Your task to perform on an android device: Clear the shopping cart on amazon. Search for "lg ultragear" on amazon, select the first entry, and add it to the cart. Image 0: 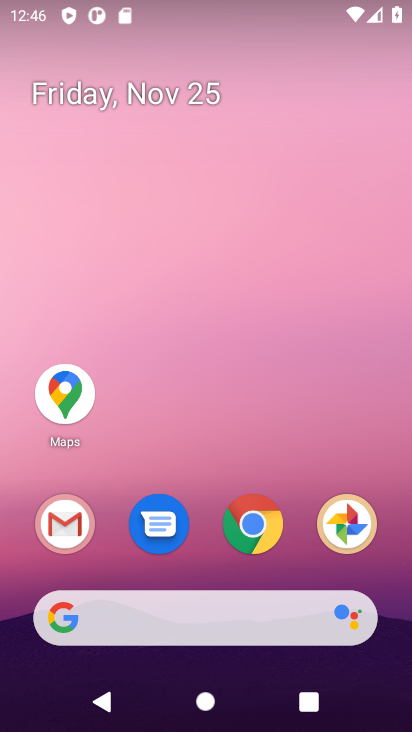
Step 0: click (259, 531)
Your task to perform on an android device: Clear the shopping cart on amazon. Search for "lg ultragear" on amazon, select the first entry, and add it to the cart. Image 1: 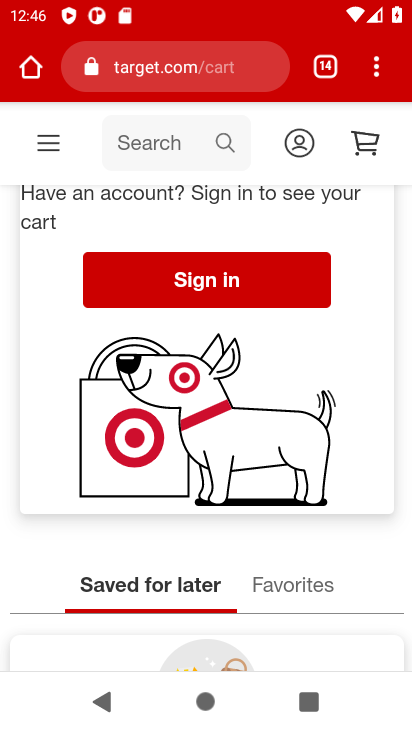
Step 1: click (198, 69)
Your task to perform on an android device: Clear the shopping cart on amazon. Search for "lg ultragear" on amazon, select the first entry, and add it to the cart. Image 2: 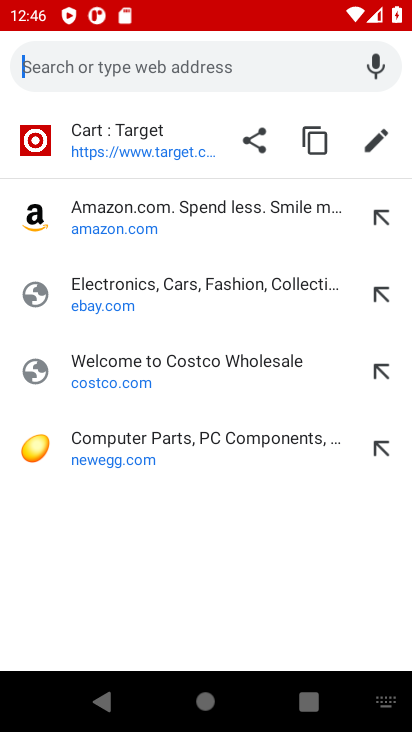
Step 2: click (99, 211)
Your task to perform on an android device: Clear the shopping cart on amazon. Search for "lg ultragear" on amazon, select the first entry, and add it to the cart. Image 3: 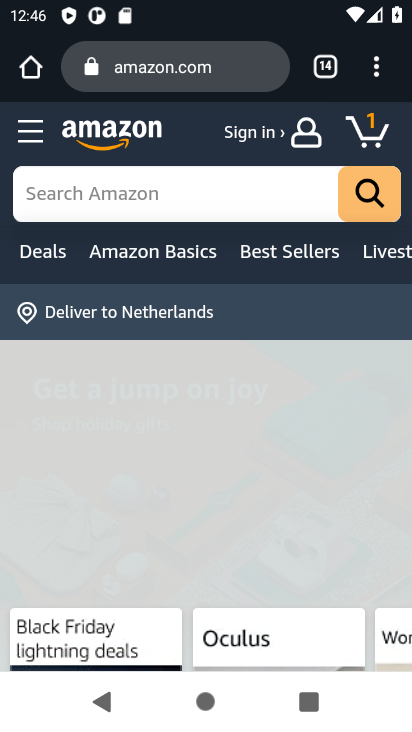
Step 3: click (373, 128)
Your task to perform on an android device: Clear the shopping cart on amazon. Search for "lg ultragear" on amazon, select the first entry, and add it to the cart. Image 4: 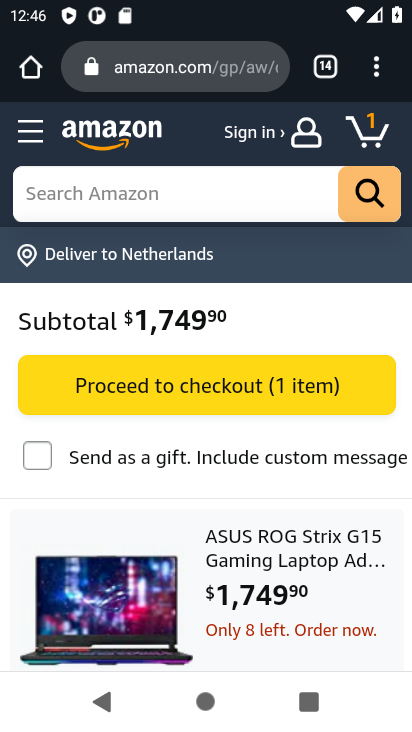
Step 4: drag from (137, 623) to (155, 325)
Your task to perform on an android device: Clear the shopping cart on amazon. Search for "lg ultragear" on amazon, select the first entry, and add it to the cart. Image 5: 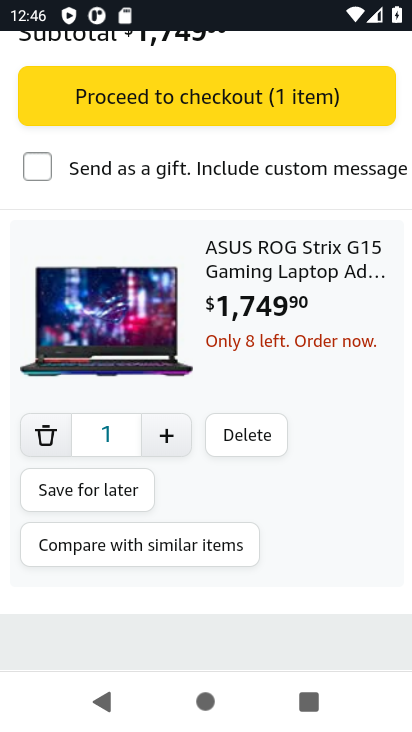
Step 5: click (236, 441)
Your task to perform on an android device: Clear the shopping cart on amazon. Search for "lg ultragear" on amazon, select the first entry, and add it to the cart. Image 6: 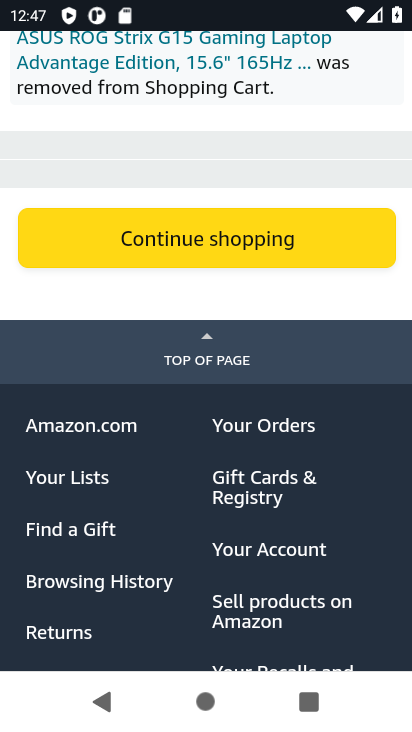
Step 6: drag from (294, 356) to (288, 606)
Your task to perform on an android device: Clear the shopping cart on amazon. Search for "lg ultragear" on amazon, select the first entry, and add it to the cart. Image 7: 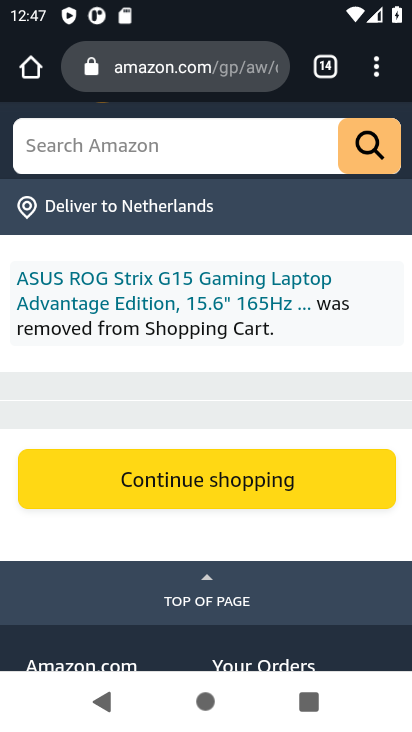
Step 7: click (172, 142)
Your task to perform on an android device: Clear the shopping cart on amazon. Search for "lg ultragear" on amazon, select the first entry, and add it to the cart. Image 8: 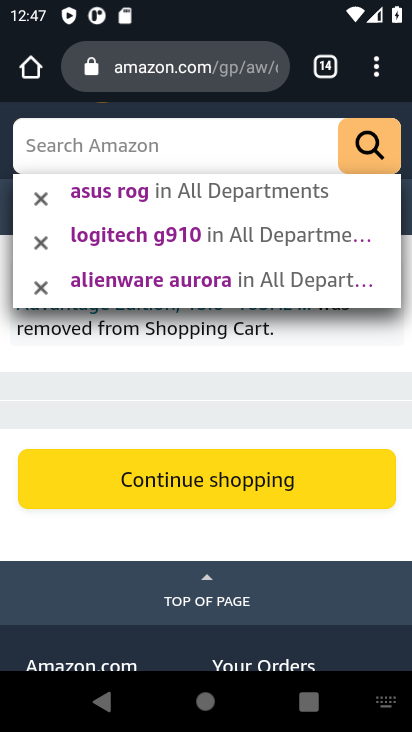
Step 8: type "lg ultragear"
Your task to perform on an android device: Clear the shopping cart on amazon. Search for "lg ultragear" on amazon, select the first entry, and add it to the cart. Image 9: 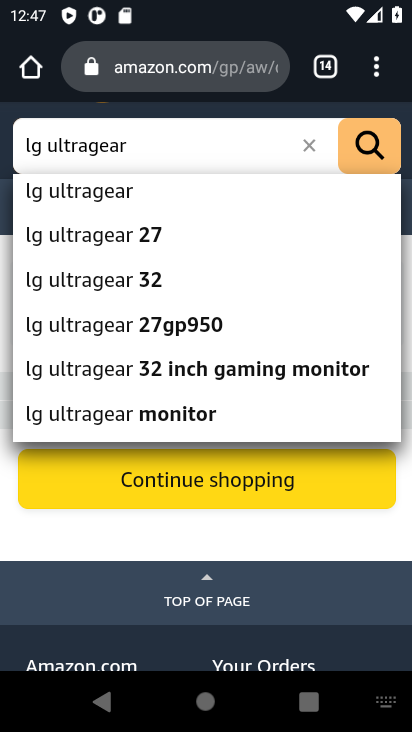
Step 9: click (78, 198)
Your task to perform on an android device: Clear the shopping cart on amazon. Search for "lg ultragear" on amazon, select the first entry, and add it to the cart. Image 10: 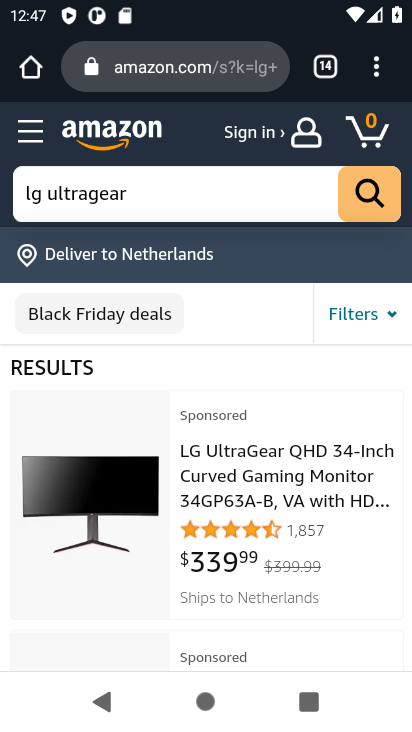
Step 10: drag from (128, 446) to (159, 266)
Your task to perform on an android device: Clear the shopping cart on amazon. Search for "lg ultragear" on amazon, select the first entry, and add it to the cart. Image 11: 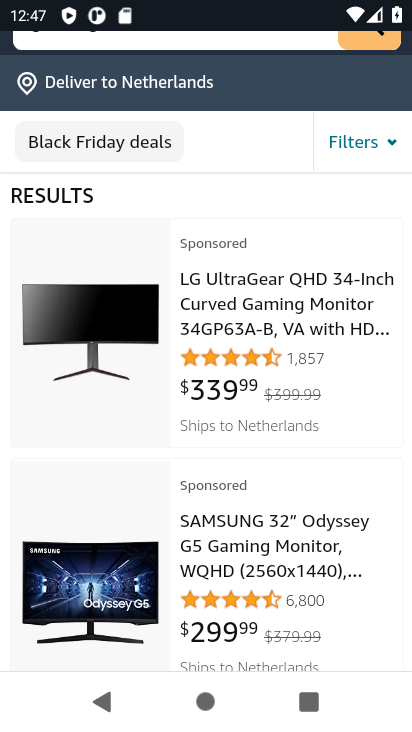
Step 11: click (116, 335)
Your task to perform on an android device: Clear the shopping cart on amazon. Search for "lg ultragear" on amazon, select the first entry, and add it to the cart. Image 12: 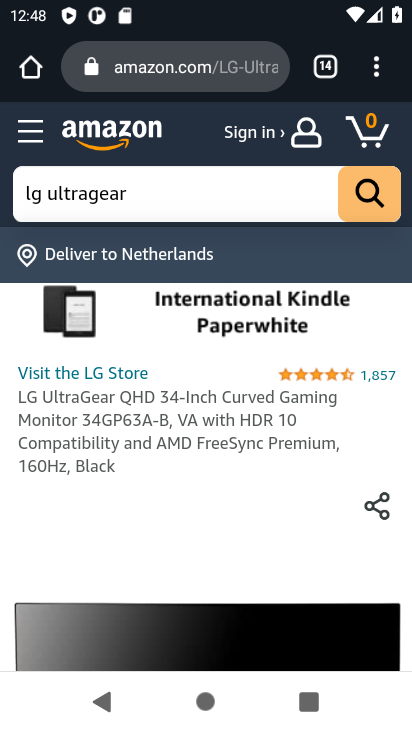
Step 12: drag from (167, 404) to (195, 302)
Your task to perform on an android device: Clear the shopping cart on amazon. Search for "lg ultragear" on amazon, select the first entry, and add it to the cart. Image 13: 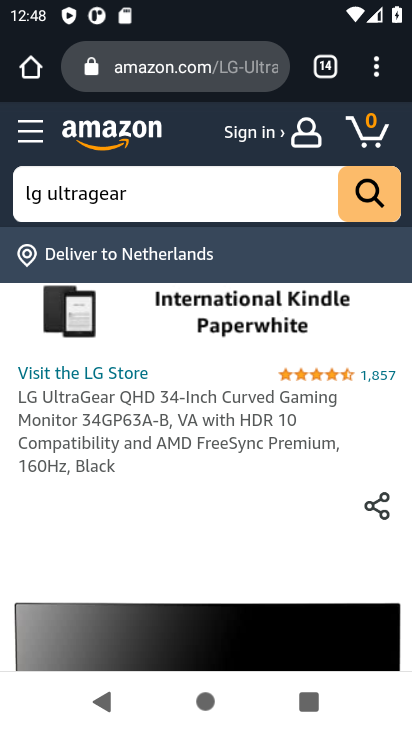
Step 13: click (374, 130)
Your task to perform on an android device: Clear the shopping cart on amazon. Search for "lg ultragear" on amazon, select the first entry, and add it to the cart. Image 14: 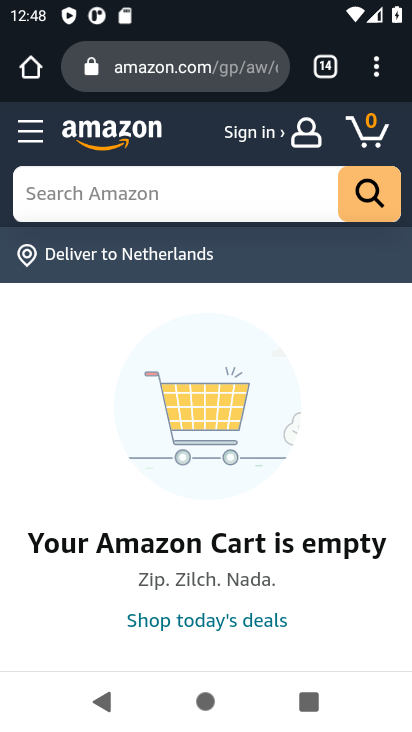
Step 14: click (94, 192)
Your task to perform on an android device: Clear the shopping cart on amazon. Search for "lg ultragear" on amazon, select the first entry, and add it to the cart. Image 15: 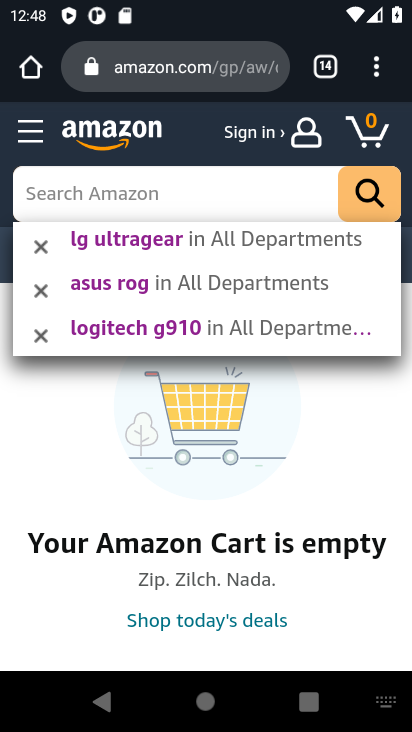
Step 15: type "lg ultragear"
Your task to perform on an android device: Clear the shopping cart on amazon. Search for "lg ultragear" on amazon, select the first entry, and add it to the cart. Image 16: 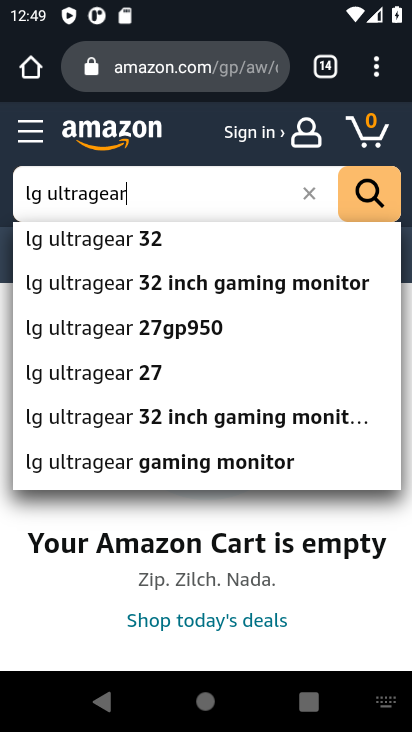
Step 16: click (95, 249)
Your task to perform on an android device: Clear the shopping cart on amazon. Search for "lg ultragear" on amazon, select the first entry, and add it to the cart. Image 17: 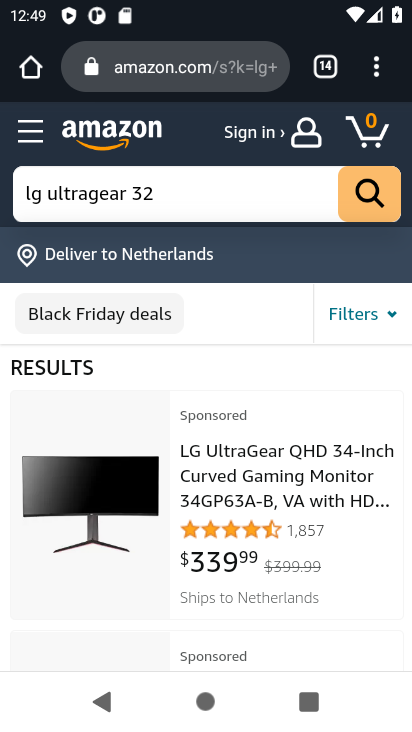
Step 17: click (113, 521)
Your task to perform on an android device: Clear the shopping cart on amazon. Search for "lg ultragear" on amazon, select the first entry, and add it to the cart. Image 18: 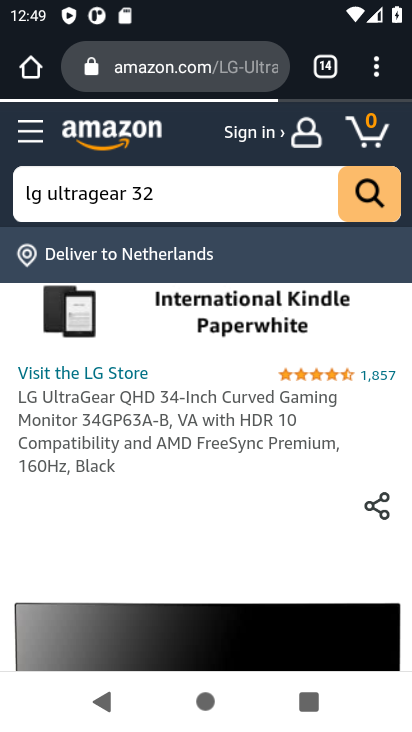
Step 18: drag from (124, 521) to (165, 425)
Your task to perform on an android device: Clear the shopping cart on amazon. Search for "lg ultragear" on amazon, select the first entry, and add it to the cart. Image 19: 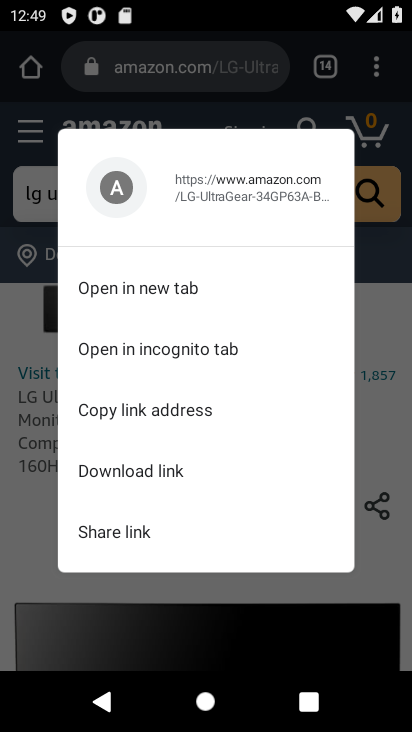
Step 19: click (18, 455)
Your task to perform on an android device: Clear the shopping cart on amazon. Search for "lg ultragear" on amazon, select the first entry, and add it to the cart. Image 20: 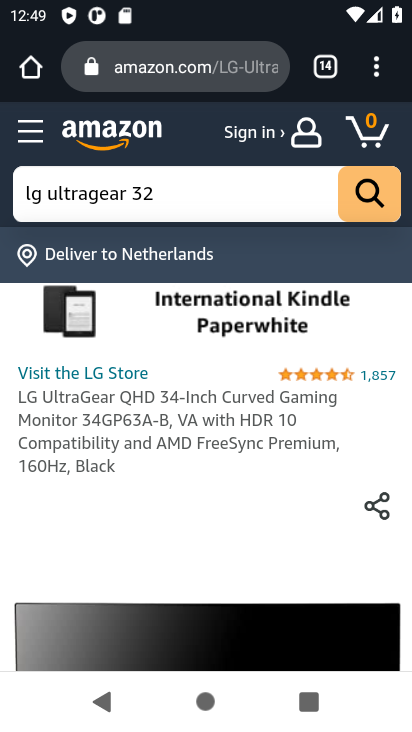
Step 20: drag from (153, 519) to (198, 236)
Your task to perform on an android device: Clear the shopping cart on amazon. Search for "lg ultragear" on amazon, select the first entry, and add it to the cart. Image 21: 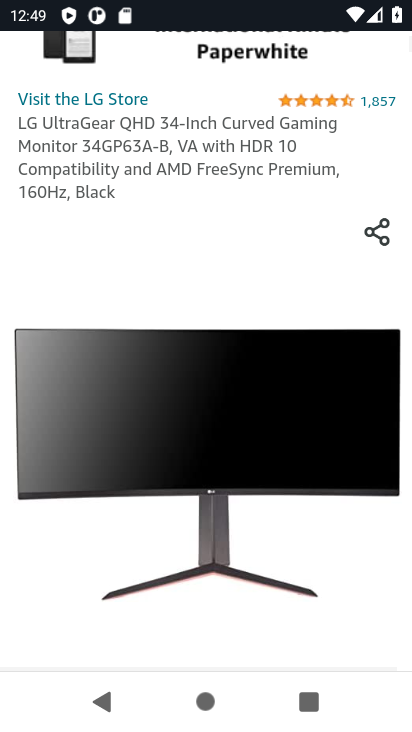
Step 21: drag from (202, 502) to (210, 81)
Your task to perform on an android device: Clear the shopping cart on amazon. Search for "lg ultragear" on amazon, select the first entry, and add it to the cart. Image 22: 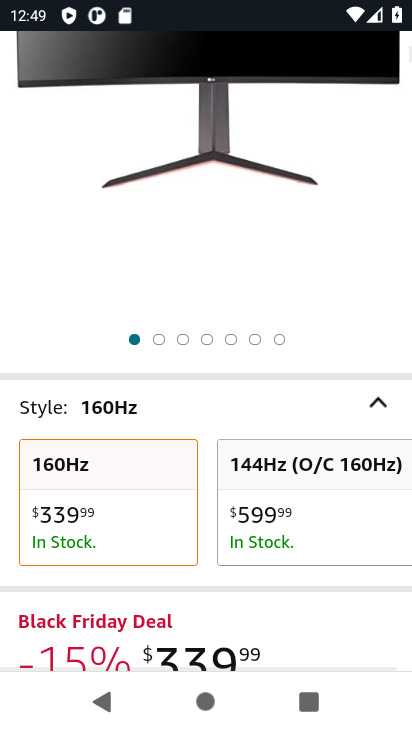
Step 22: drag from (199, 494) to (199, 116)
Your task to perform on an android device: Clear the shopping cart on amazon. Search for "lg ultragear" on amazon, select the first entry, and add it to the cart. Image 23: 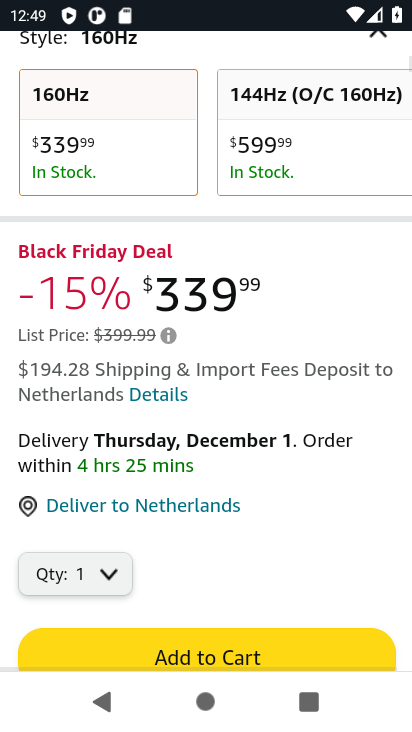
Step 23: drag from (212, 503) to (213, 206)
Your task to perform on an android device: Clear the shopping cart on amazon. Search for "lg ultragear" on amazon, select the first entry, and add it to the cart. Image 24: 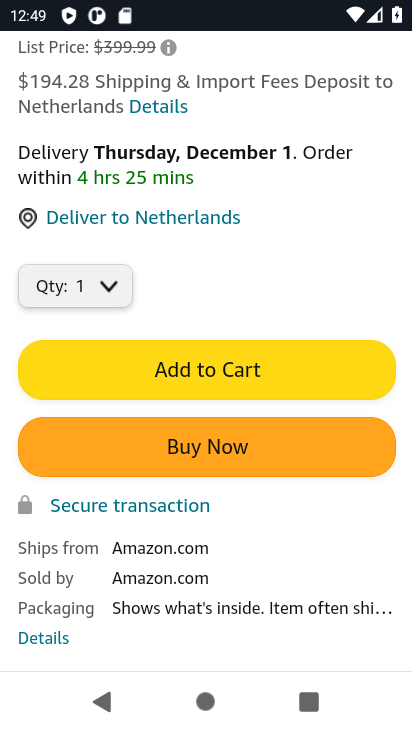
Step 24: click (193, 374)
Your task to perform on an android device: Clear the shopping cart on amazon. Search for "lg ultragear" on amazon, select the first entry, and add it to the cart. Image 25: 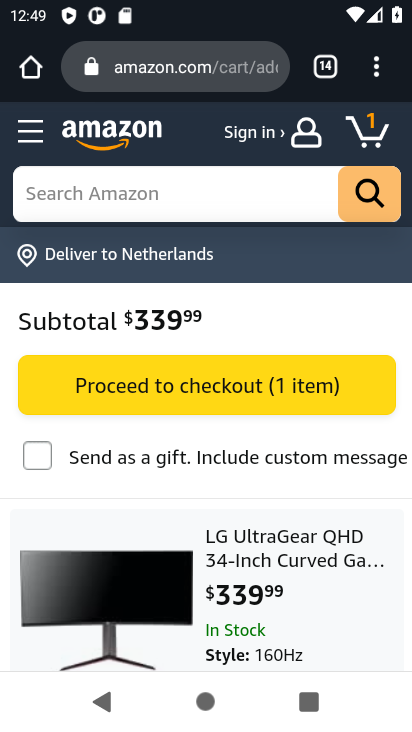
Step 25: task complete